Your task to perform on an android device: open app "Google Keep" Image 0: 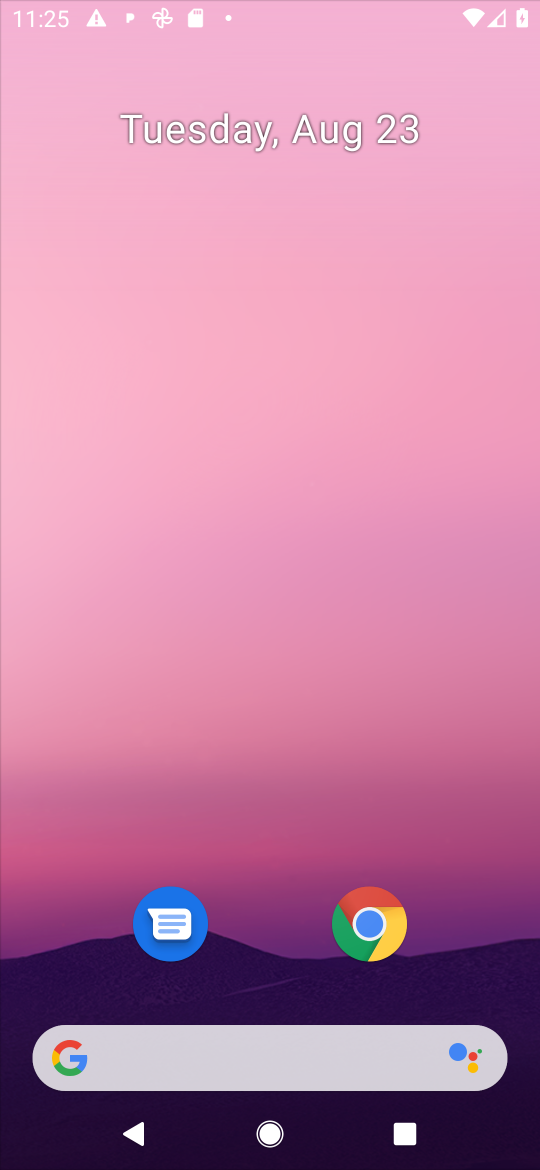
Step 0: press home button
Your task to perform on an android device: open app "Google Keep" Image 1: 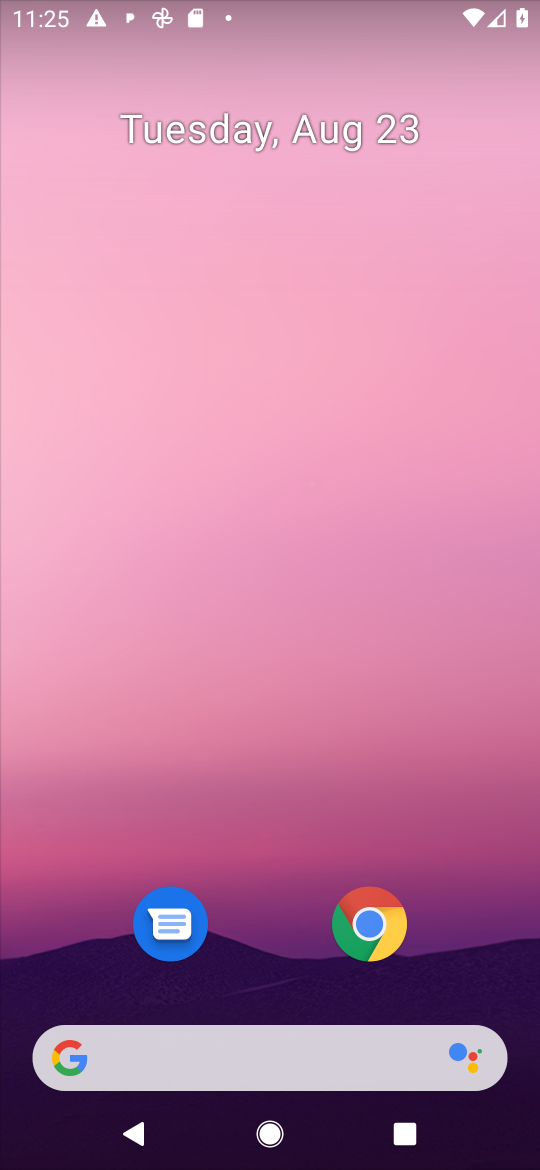
Step 1: drag from (469, 980) to (498, 90)
Your task to perform on an android device: open app "Google Keep" Image 2: 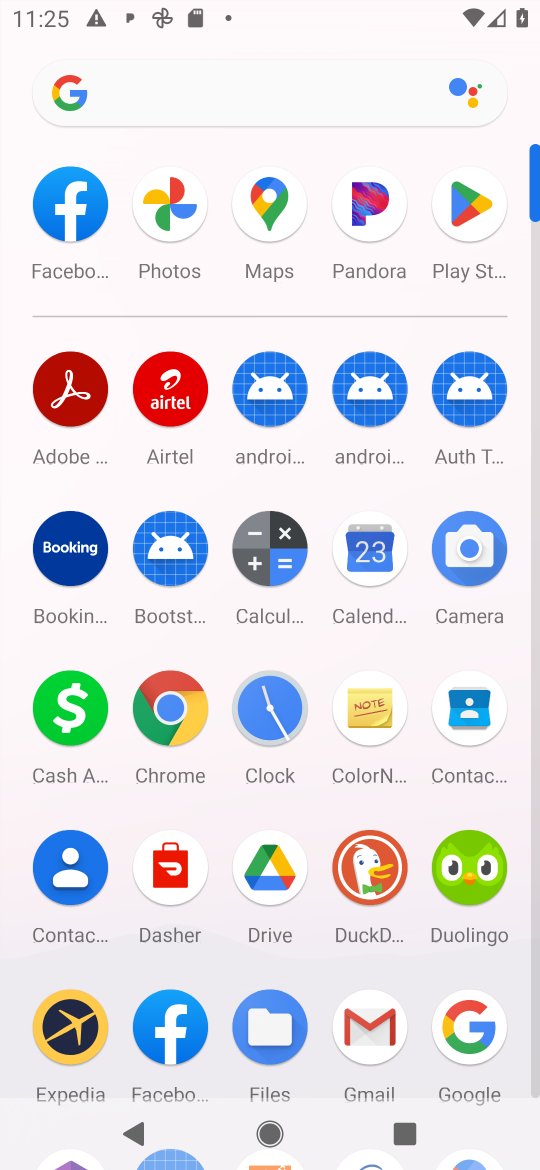
Step 2: click (464, 201)
Your task to perform on an android device: open app "Google Keep" Image 3: 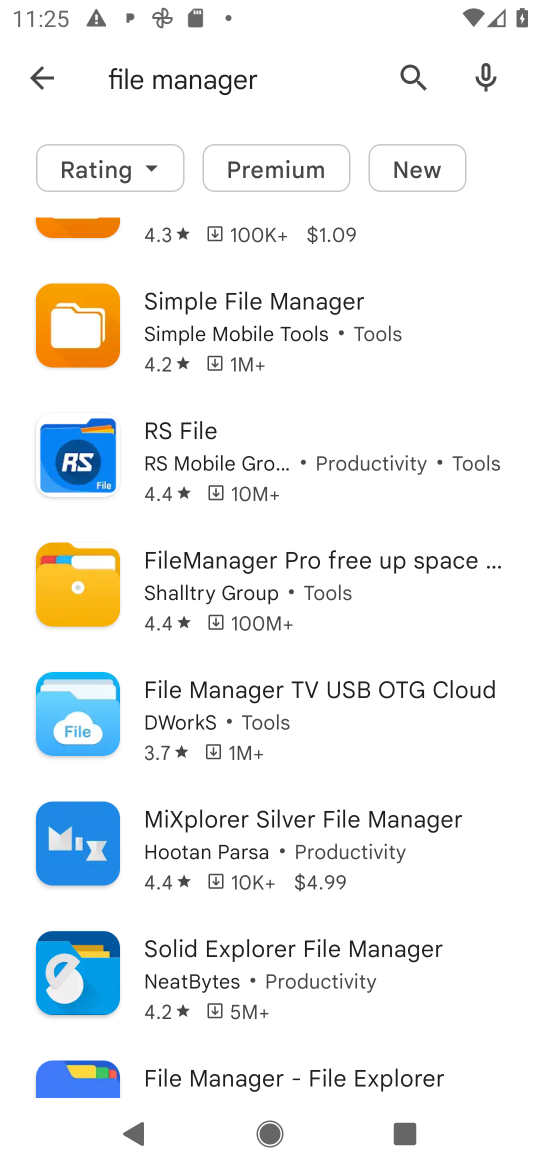
Step 3: press back button
Your task to perform on an android device: open app "Google Keep" Image 4: 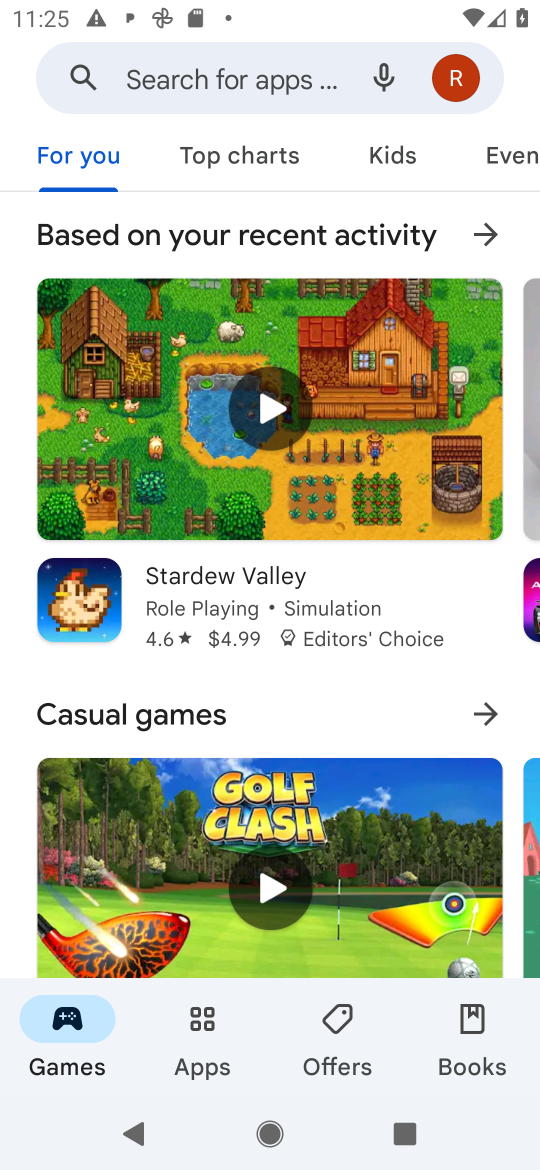
Step 4: click (234, 74)
Your task to perform on an android device: open app "Google Keep" Image 5: 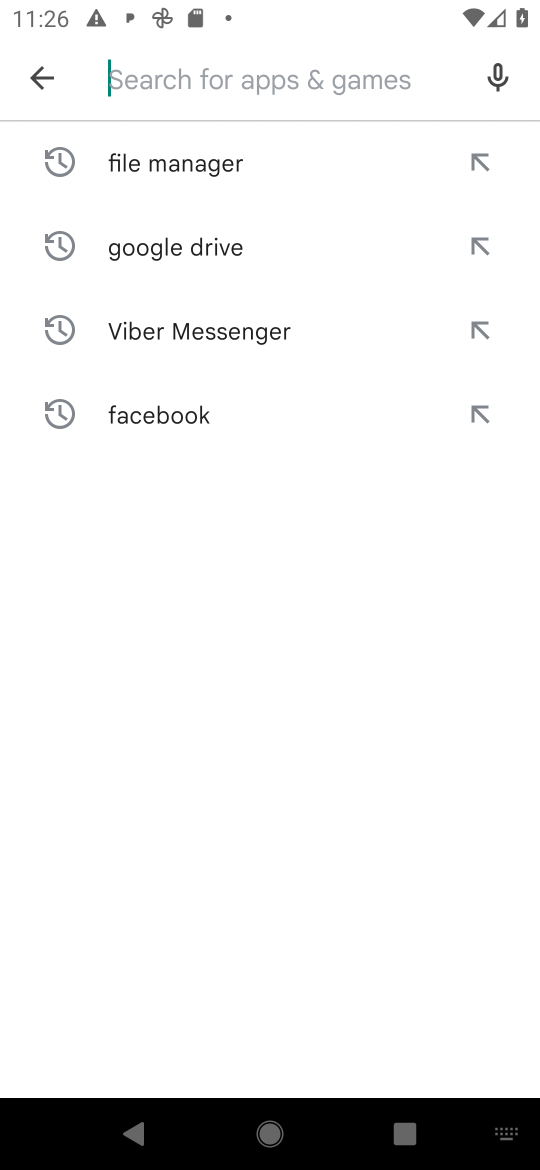
Step 5: press enter
Your task to perform on an android device: open app "Google Keep" Image 6: 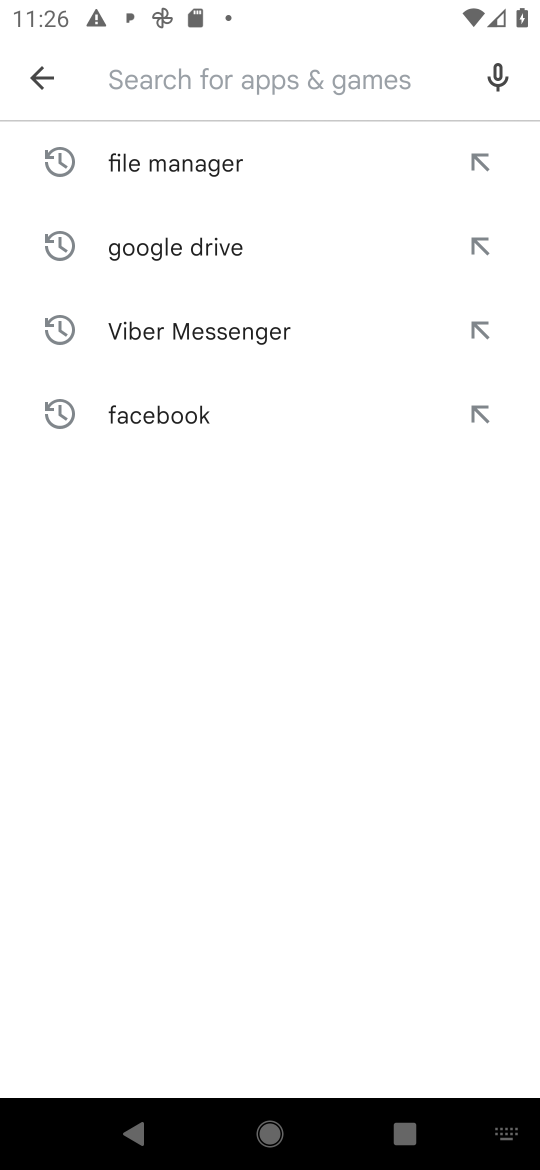
Step 6: type "google keep"
Your task to perform on an android device: open app "Google Keep" Image 7: 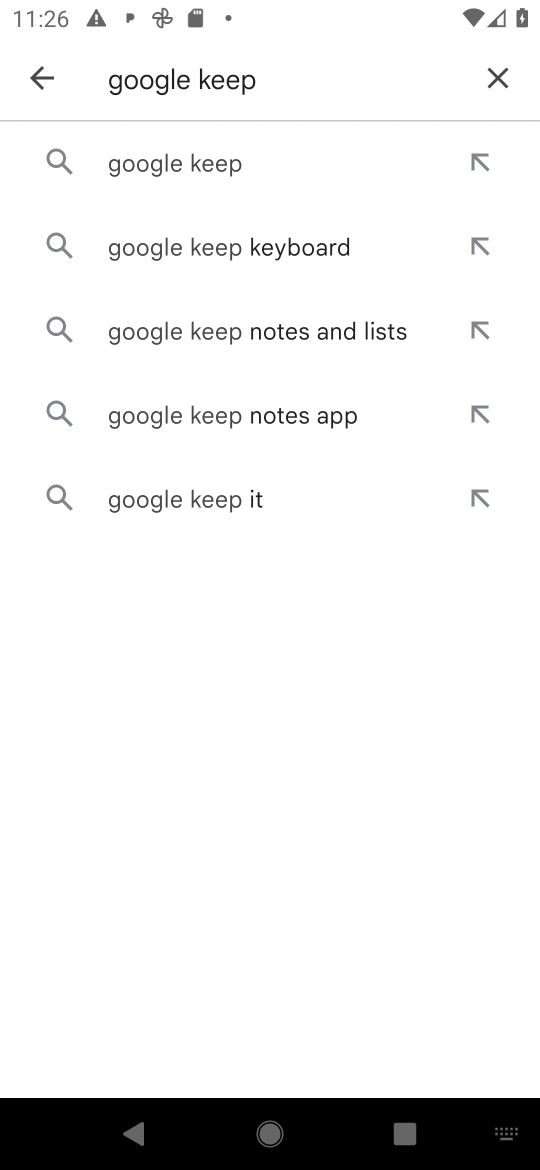
Step 7: click (231, 154)
Your task to perform on an android device: open app "Google Keep" Image 8: 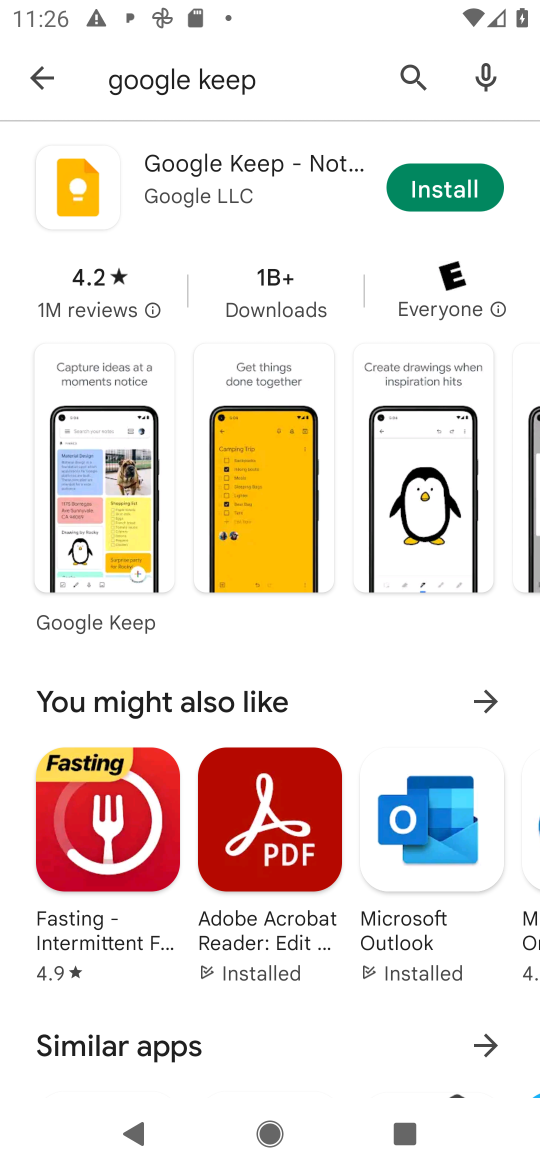
Step 8: task complete